Your task to perform on an android device: Go to battery settings Image 0: 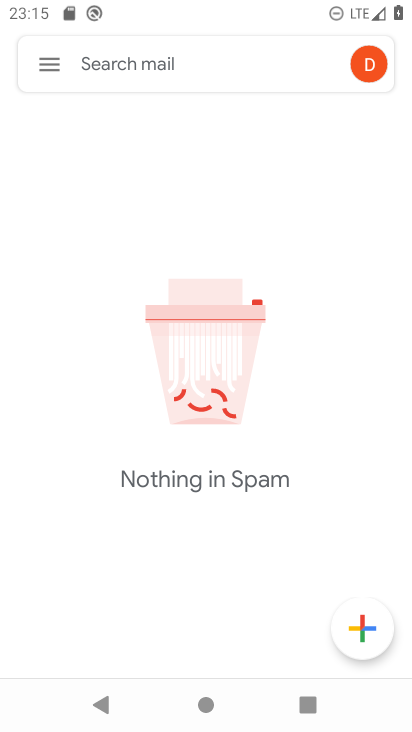
Step 0: press home button
Your task to perform on an android device: Go to battery settings Image 1: 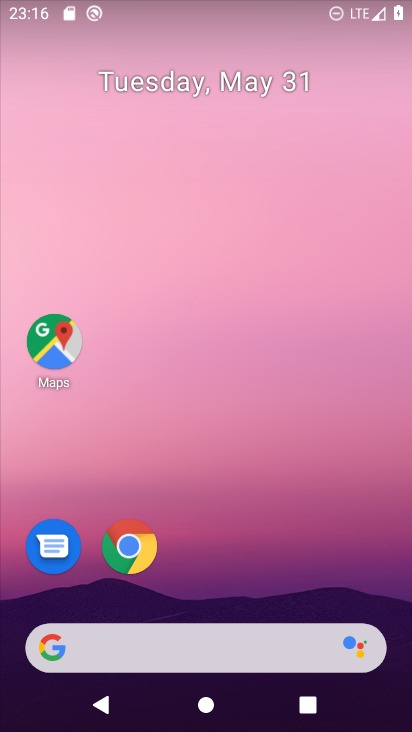
Step 1: drag from (370, 500) to (309, 121)
Your task to perform on an android device: Go to battery settings Image 2: 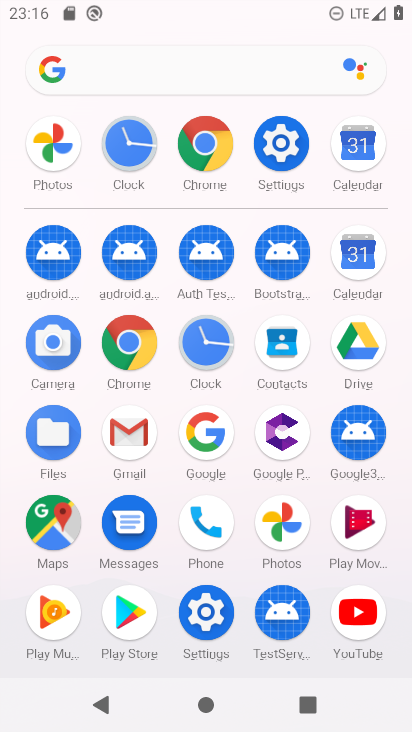
Step 2: click (275, 145)
Your task to perform on an android device: Go to battery settings Image 3: 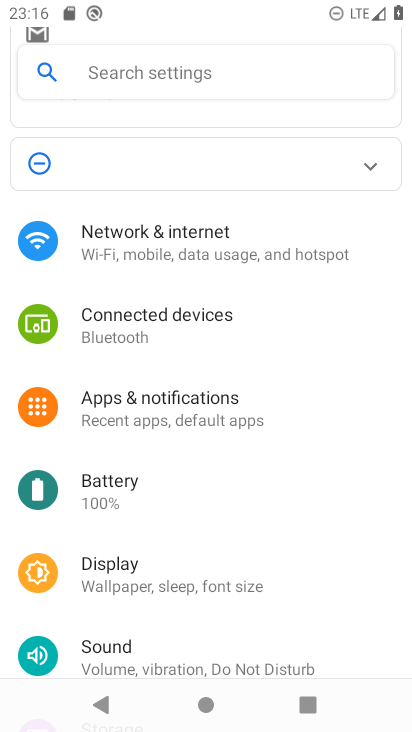
Step 3: click (104, 492)
Your task to perform on an android device: Go to battery settings Image 4: 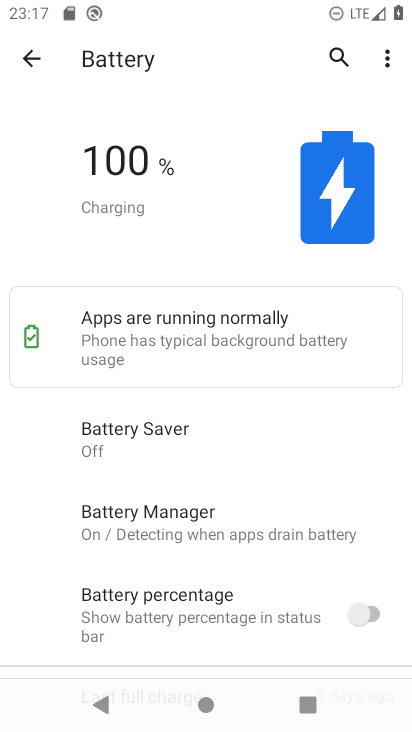
Step 4: task complete